Your task to perform on an android device: add a label to a message in the gmail app Image 0: 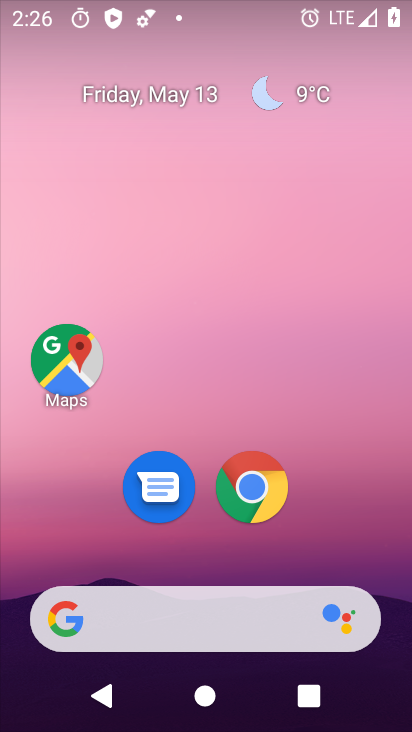
Step 0: drag from (209, 539) to (222, 94)
Your task to perform on an android device: add a label to a message in the gmail app Image 1: 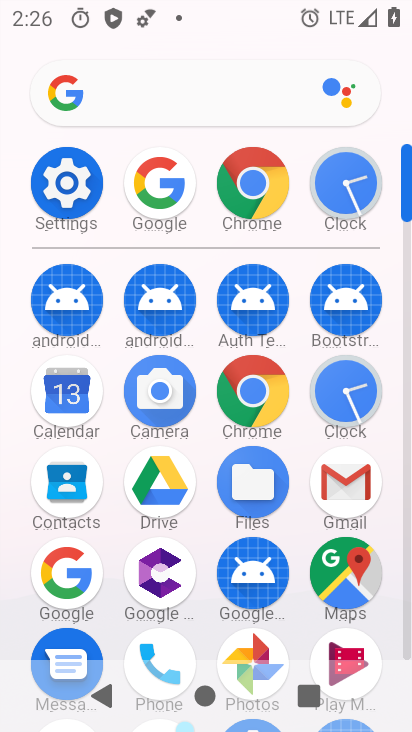
Step 1: click (345, 483)
Your task to perform on an android device: add a label to a message in the gmail app Image 2: 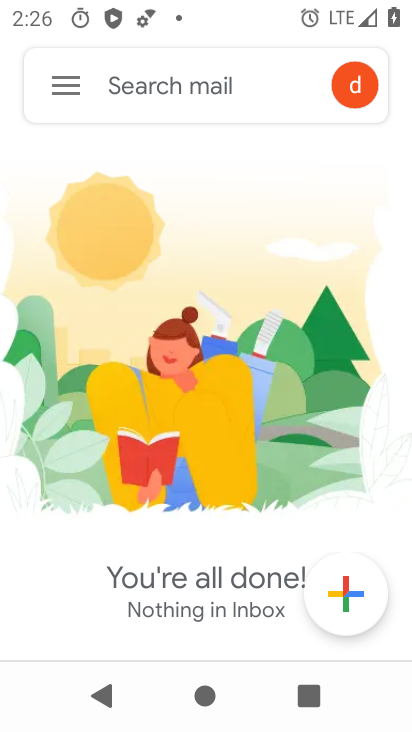
Step 2: click (66, 82)
Your task to perform on an android device: add a label to a message in the gmail app Image 3: 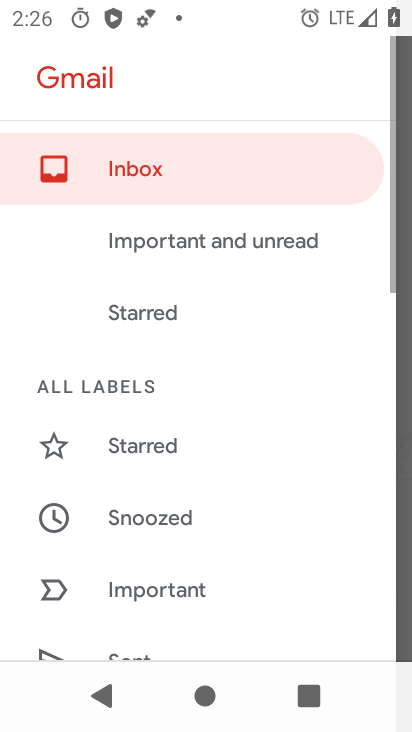
Step 3: drag from (190, 525) to (170, 43)
Your task to perform on an android device: add a label to a message in the gmail app Image 4: 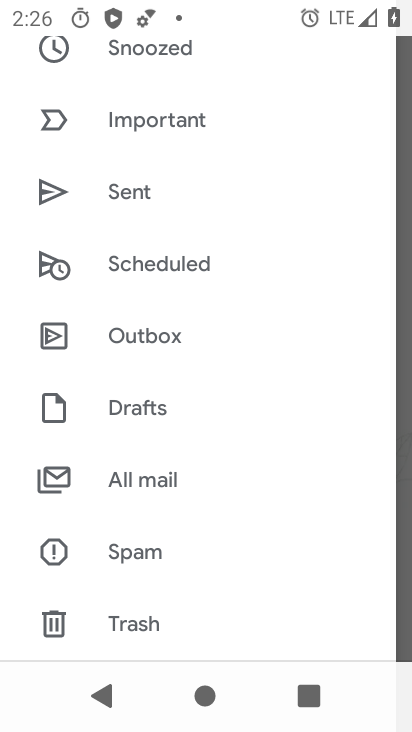
Step 4: click (133, 486)
Your task to perform on an android device: add a label to a message in the gmail app Image 5: 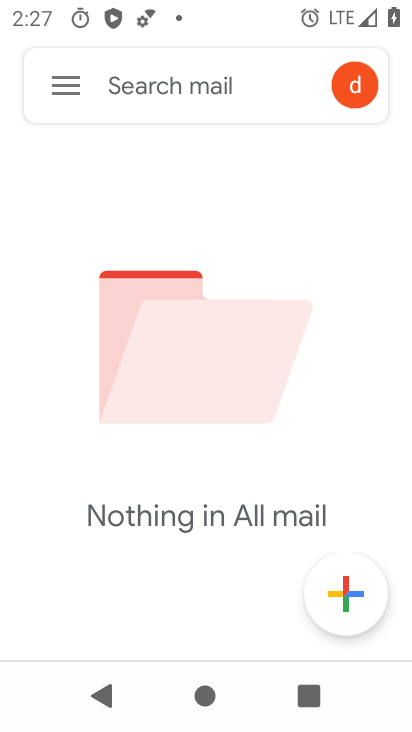
Step 5: task complete